Your task to perform on an android device: turn off wifi Image 0: 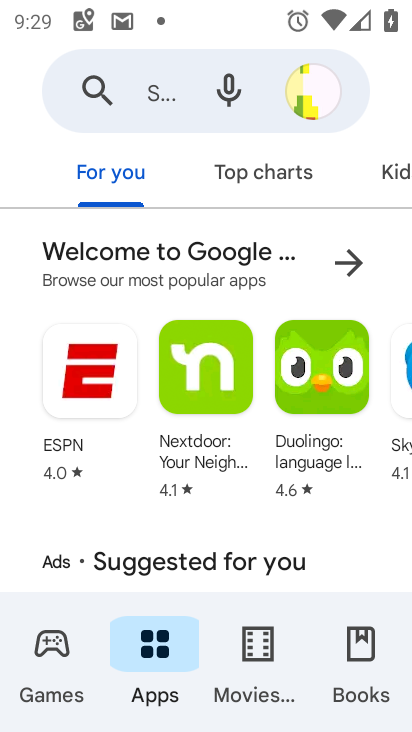
Step 0: press home button
Your task to perform on an android device: turn off wifi Image 1: 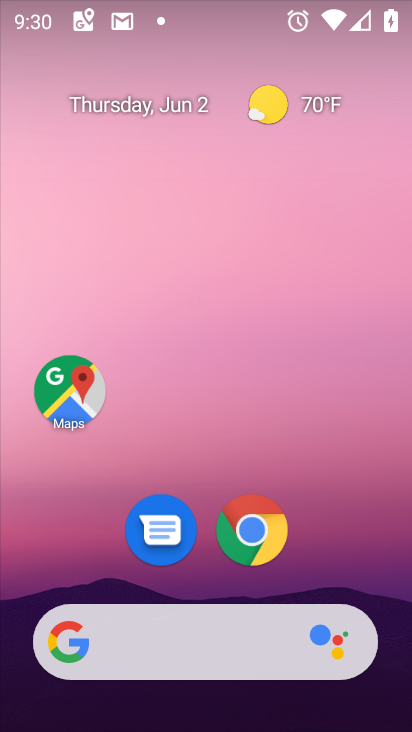
Step 1: drag from (189, 612) to (163, 307)
Your task to perform on an android device: turn off wifi Image 2: 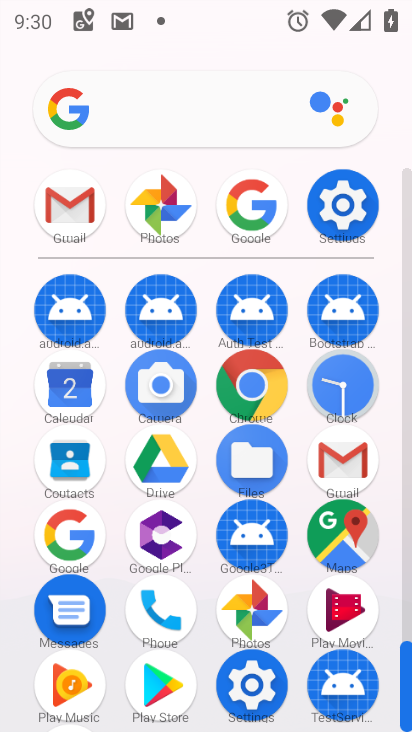
Step 2: click (340, 202)
Your task to perform on an android device: turn off wifi Image 3: 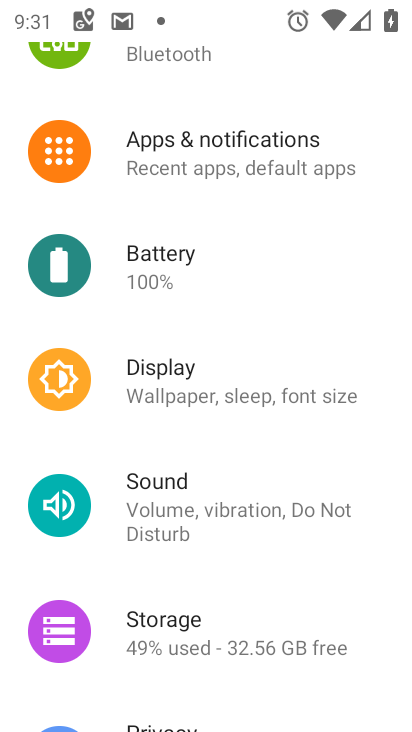
Step 3: drag from (207, 128) to (218, 586)
Your task to perform on an android device: turn off wifi Image 4: 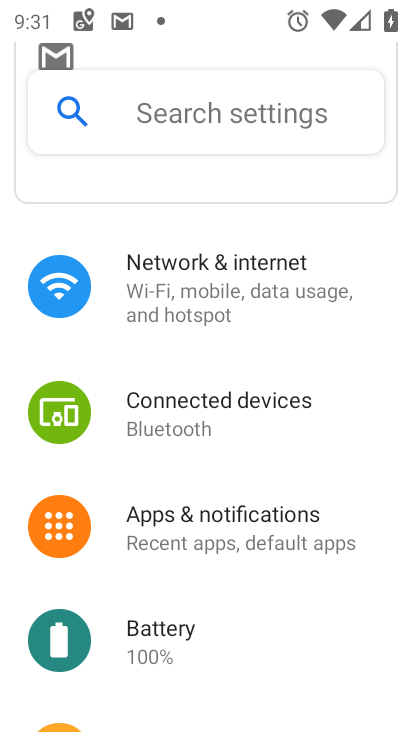
Step 4: click (171, 291)
Your task to perform on an android device: turn off wifi Image 5: 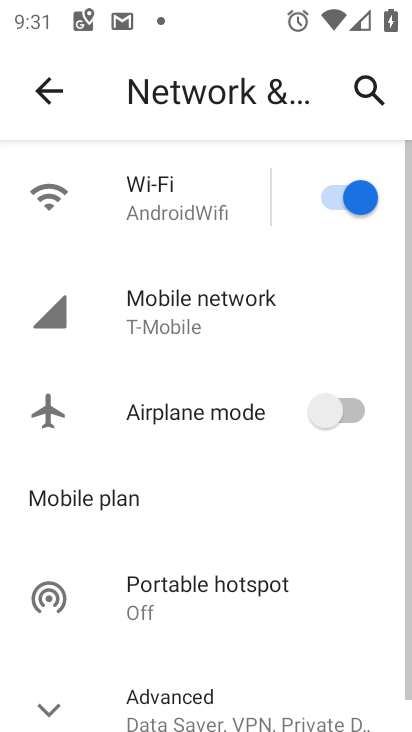
Step 5: click (329, 196)
Your task to perform on an android device: turn off wifi Image 6: 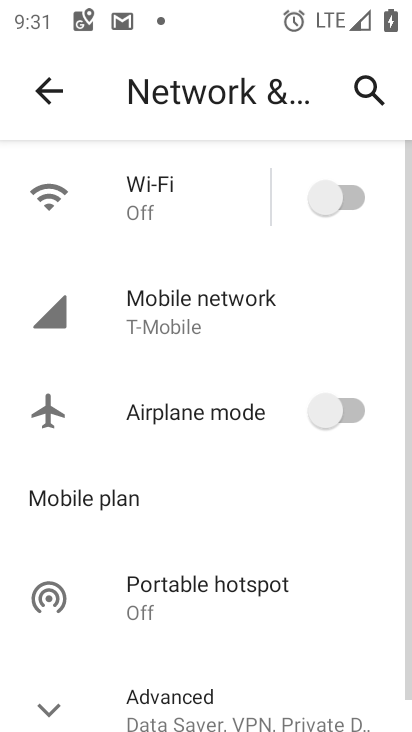
Step 6: task complete